Your task to perform on an android device: Go to display settings Image 0: 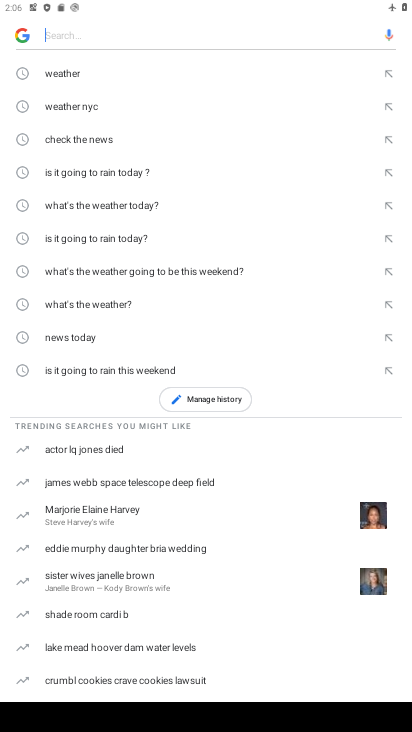
Step 0: press home button
Your task to perform on an android device: Go to display settings Image 1: 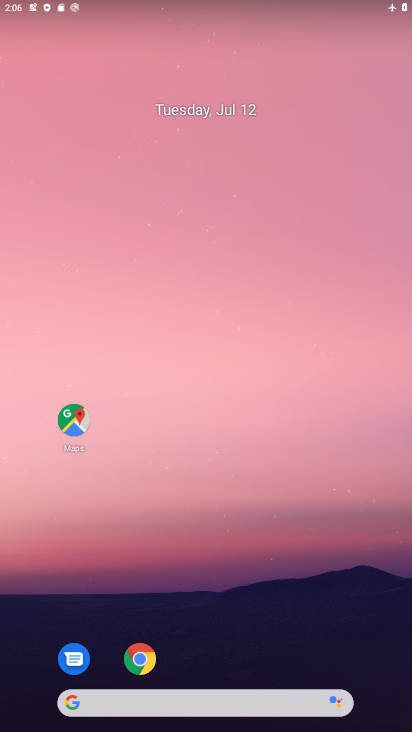
Step 1: click (216, 728)
Your task to perform on an android device: Go to display settings Image 2: 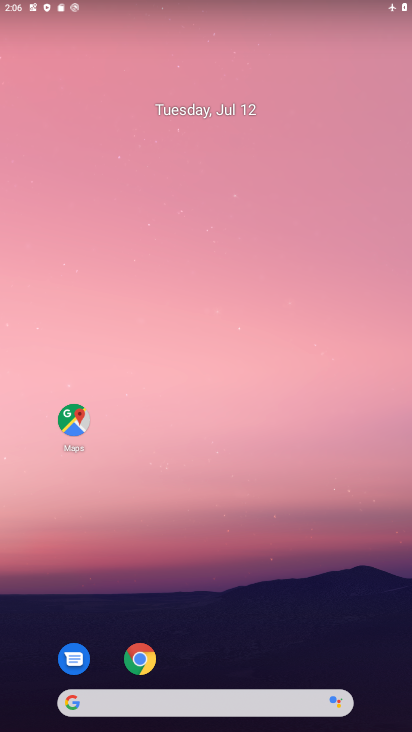
Step 2: drag from (219, 267) to (204, 124)
Your task to perform on an android device: Go to display settings Image 3: 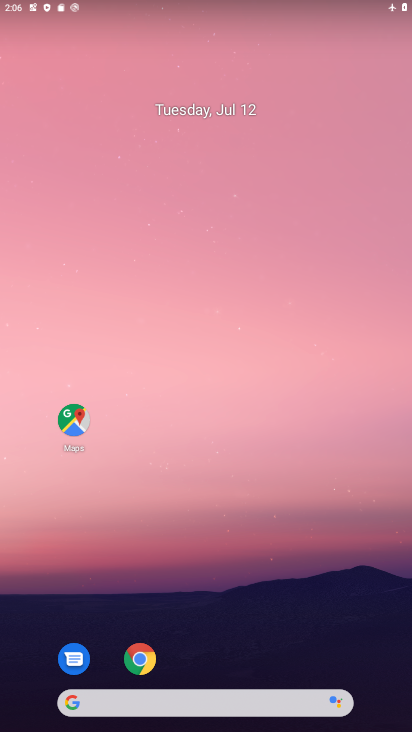
Step 3: drag from (215, 724) to (217, 690)
Your task to perform on an android device: Go to display settings Image 4: 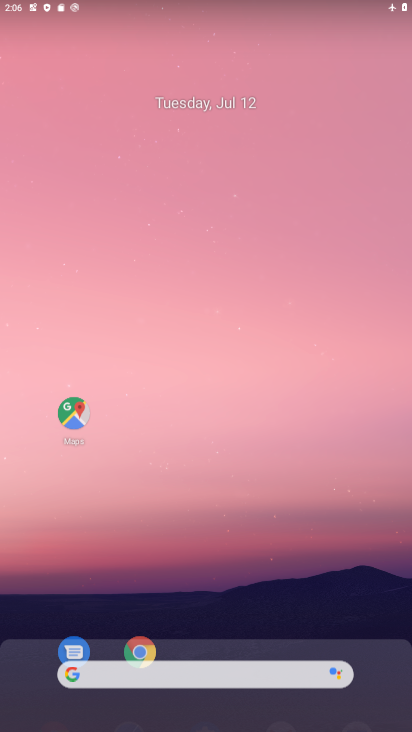
Step 4: click (206, 135)
Your task to perform on an android device: Go to display settings Image 5: 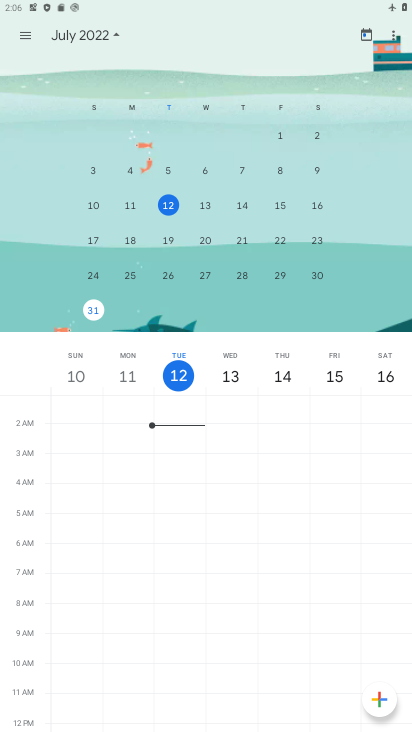
Step 5: press home button
Your task to perform on an android device: Go to display settings Image 6: 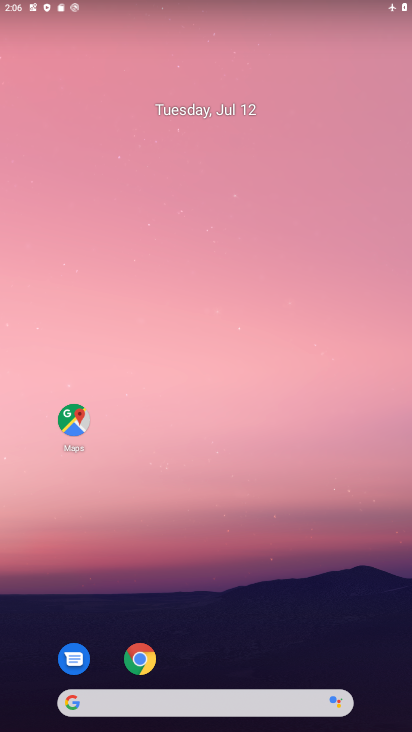
Step 6: drag from (240, 713) to (231, 586)
Your task to perform on an android device: Go to display settings Image 7: 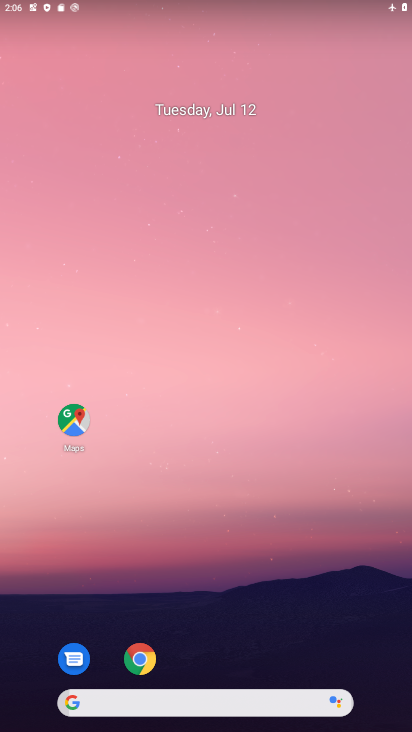
Step 7: drag from (231, 358) to (228, 137)
Your task to perform on an android device: Go to display settings Image 8: 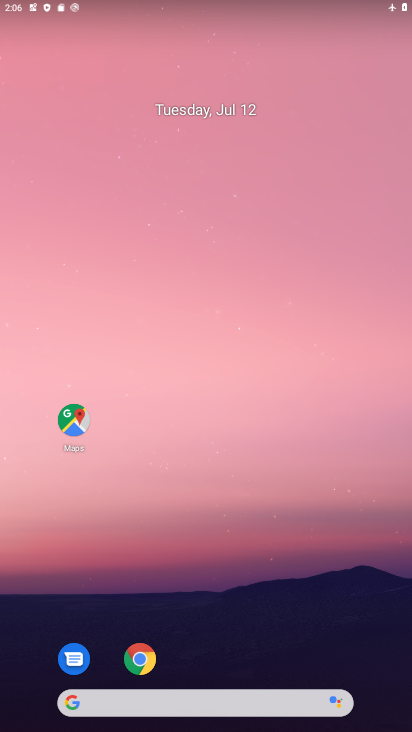
Step 8: drag from (259, 704) to (257, 189)
Your task to perform on an android device: Go to display settings Image 9: 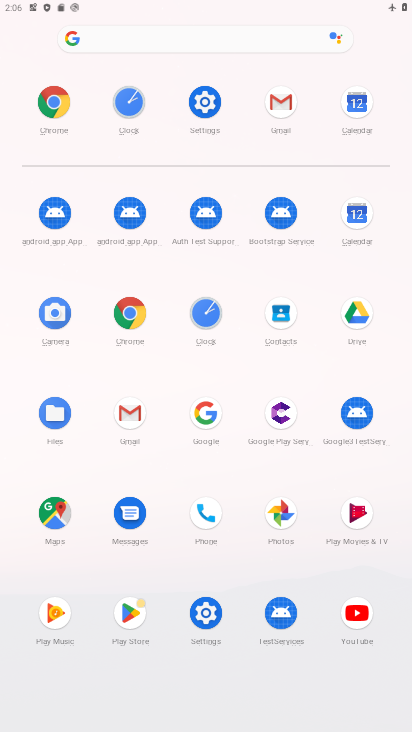
Step 9: click (199, 98)
Your task to perform on an android device: Go to display settings Image 10: 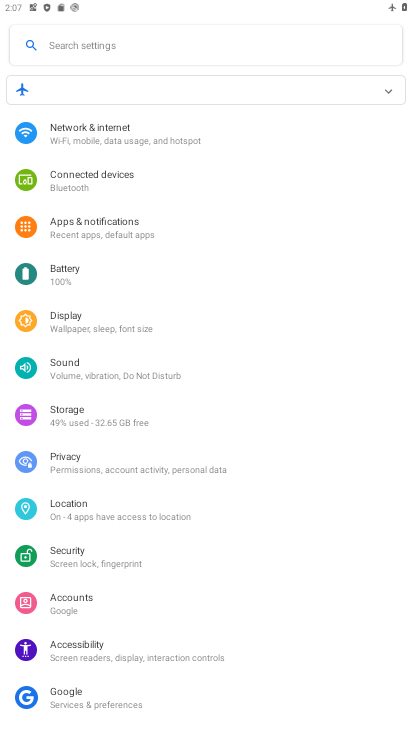
Step 10: click (72, 314)
Your task to perform on an android device: Go to display settings Image 11: 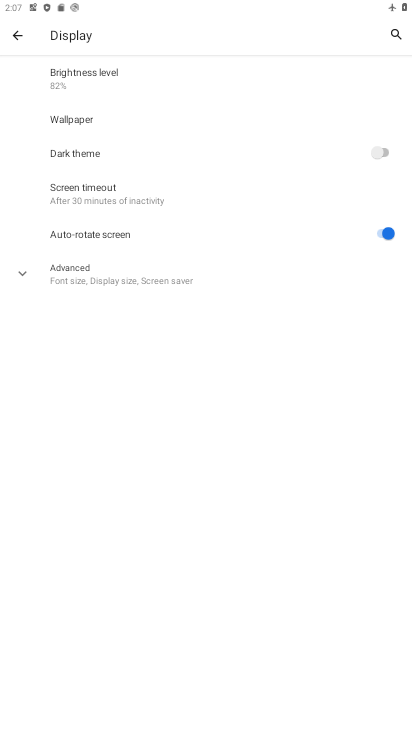
Step 11: task complete